Your task to perform on an android device: empty trash in google photos Image 0: 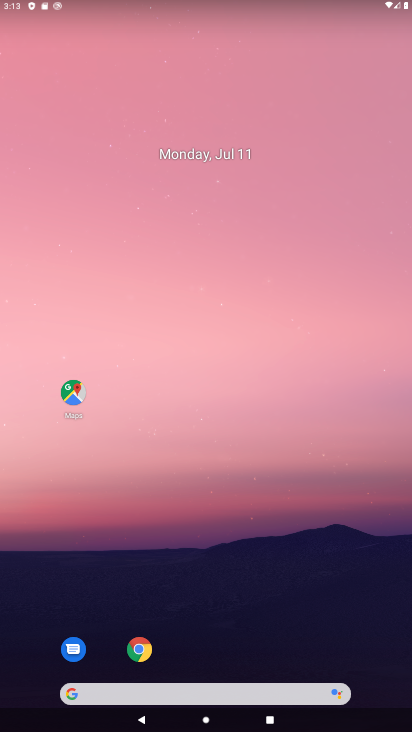
Step 0: drag from (262, 615) to (307, 7)
Your task to perform on an android device: empty trash in google photos Image 1: 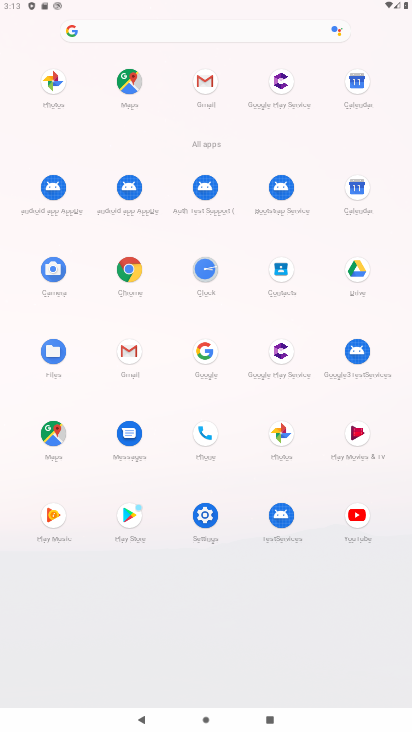
Step 1: click (283, 437)
Your task to perform on an android device: empty trash in google photos Image 2: 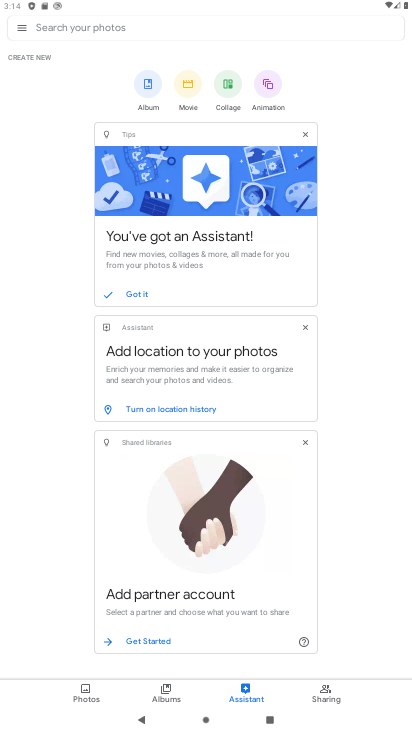
Step 2: click (19, 30)
Your task to perform on an android device: empty trash in google photos Image 3: 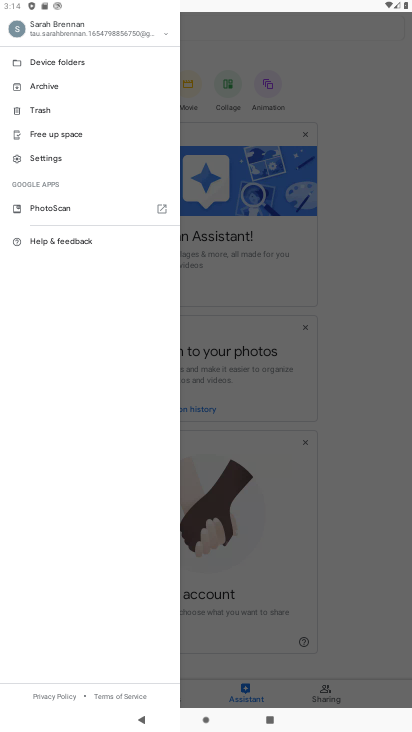
Step 3: click (48, 109)
Your task to perform on an android device: empty trash in google photos Image 4: 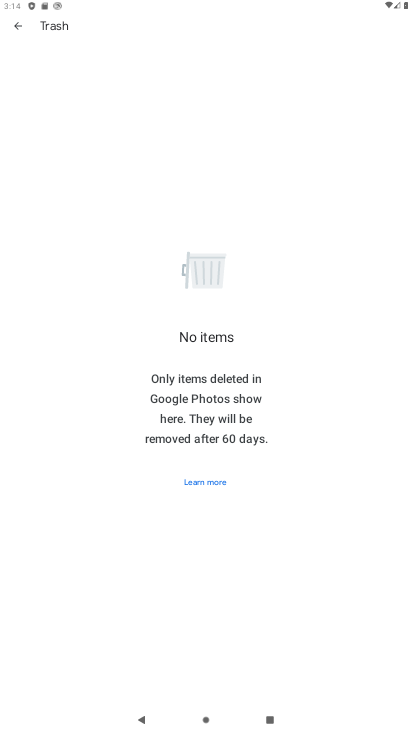
Step 4: task complete